Your task to perform on an android device: Open Google Chrome and open the bookmarks view Image 0: 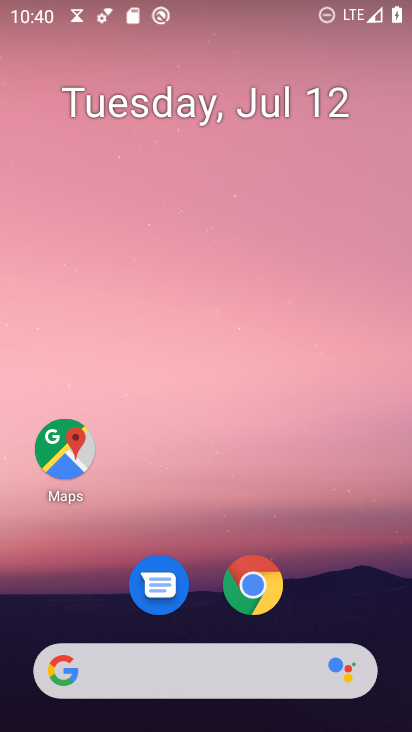
Step 0: click (259, 584)
Your task to perform on an android device: Open Google Chrome and open the bookmarks view Image 1: 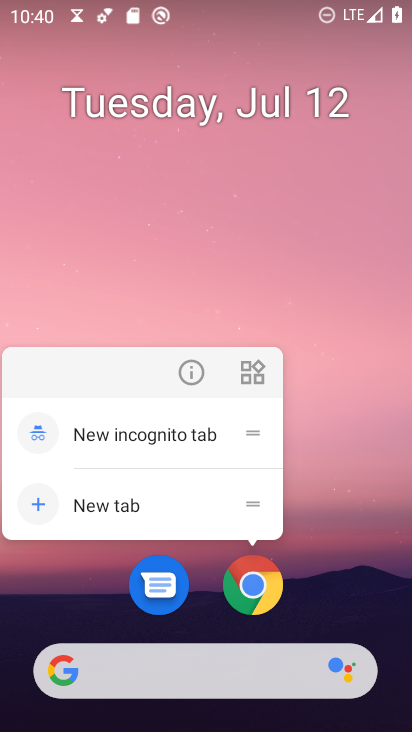
Step 1: click (254, 587)
Your task to perform on an android device: Open Google Chrome and open the bookmarks view Image 2: 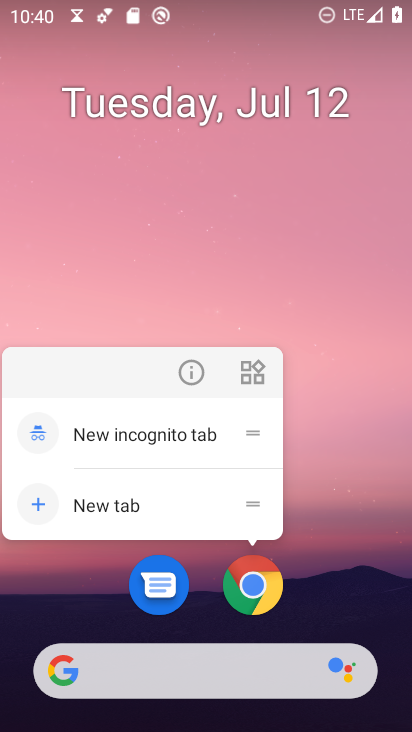
Step 2: click (254, 588)
Your task to perform on an android device: Open Google Chrome and open the bookmarks view Image 3: 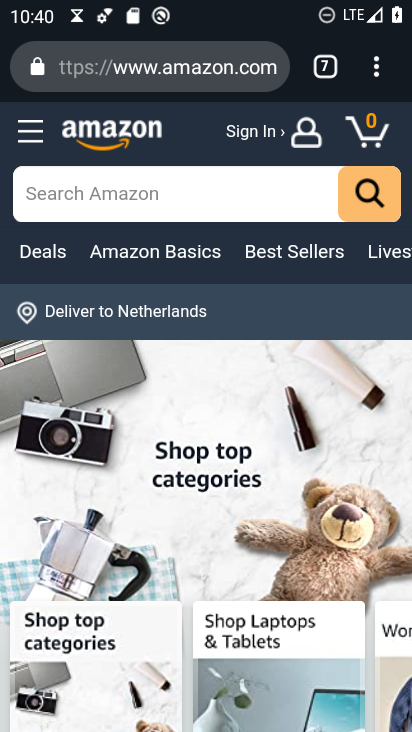
Step 3: task complete